Your task to perform on an android device: turn on sleep mode Image 0: 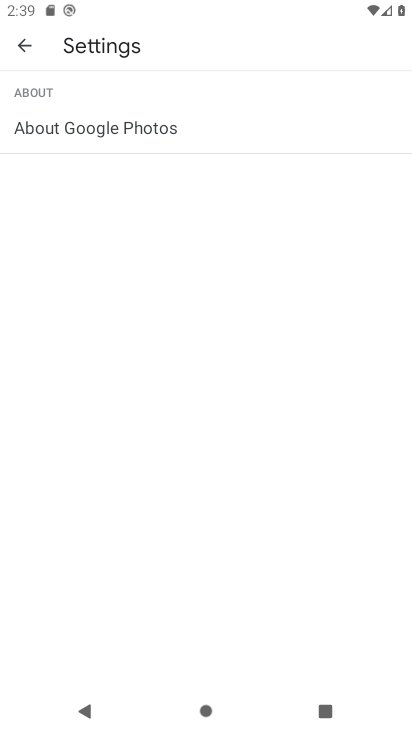
Step 0: press home button
Your task to perform on an android device: turn on sleep mode Image 1: 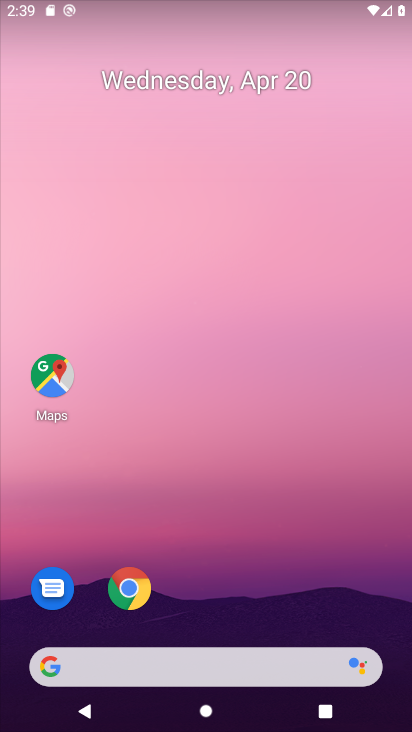
Step 1: drag from (346, 566) to (345, 112)
Your task to perform on an android device: turn on sleep mode Image 2: 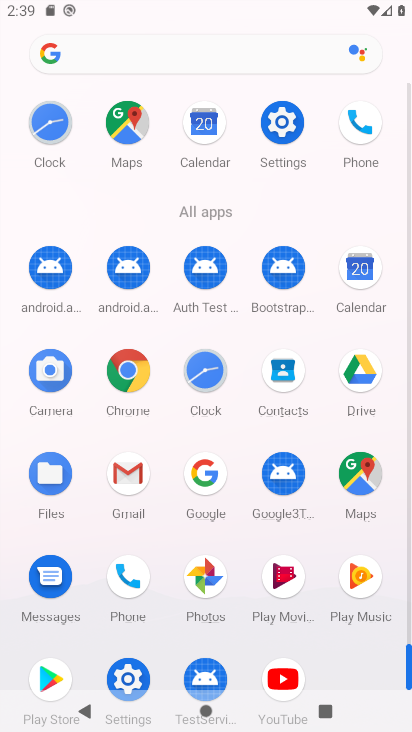
Step 2: click (284, 129)
Your task to perform on an android device: turn on sleep mode Image 3: 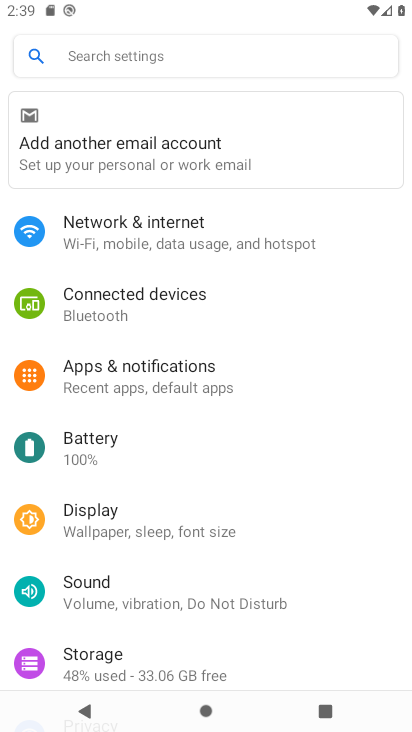
Step 3: click (165, 527)
Your task to perform on an android device: turn on sleep mode Image 4: 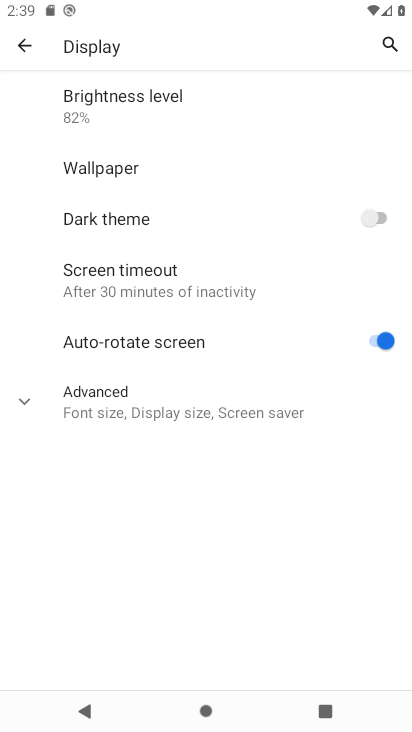
Step 4: click (167, 410)
Your task to perform on an android device: turn on sleep mode Image 5: 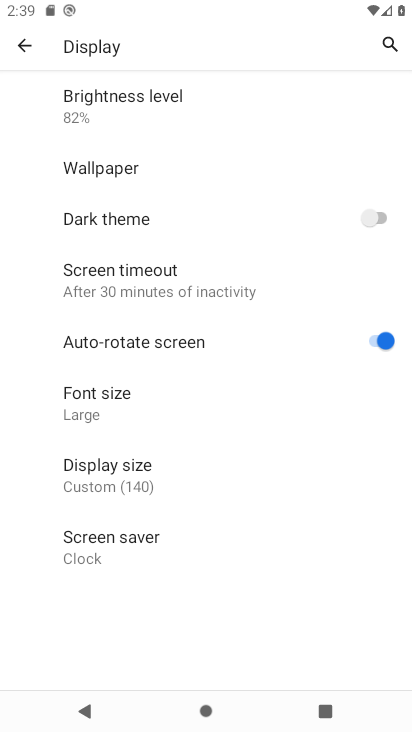
Step 5: task complete